Your task to perform on an android device: toggle location history Image 0: 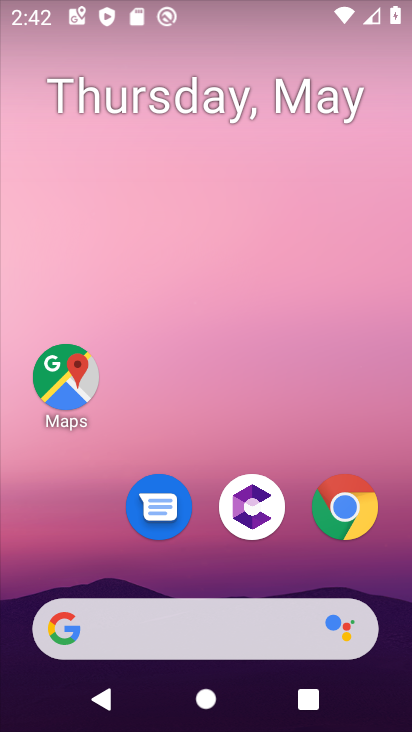
Step 0: press home button
Your task to perform on an android device: toggle location history Image 1: 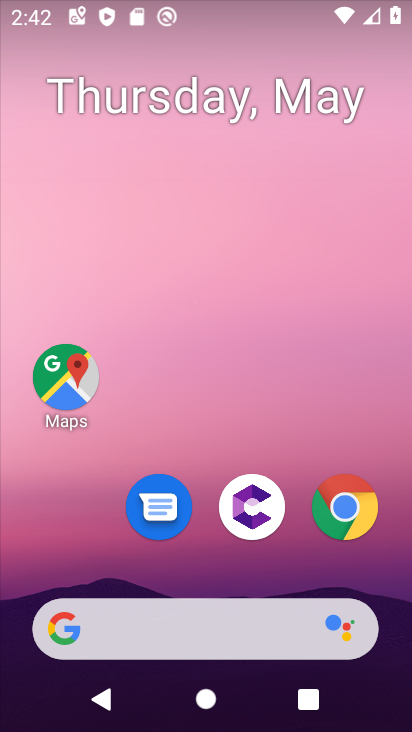
Step 1: drag from (287, 583) to (82, 86)
Your task to perform on an android device: toggle location history Image 2: 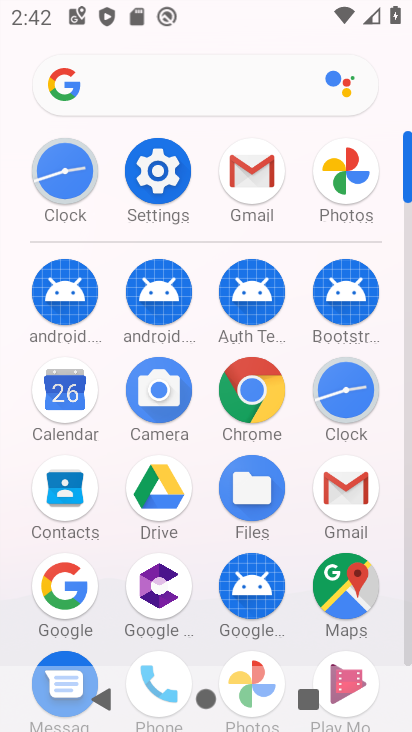
Step 2: click (141, 169)
Your task to perform on an android device: toggle location history Image 3: 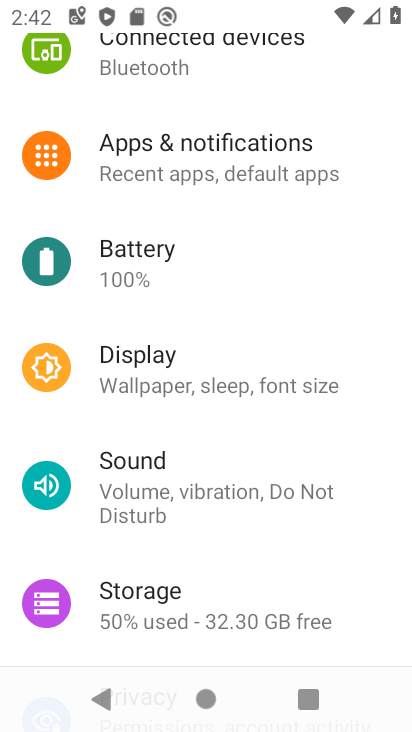
Step 3: drag from (306, 579) to (214, 253)
Your task to perform on an android device: toggle location history Image 4: 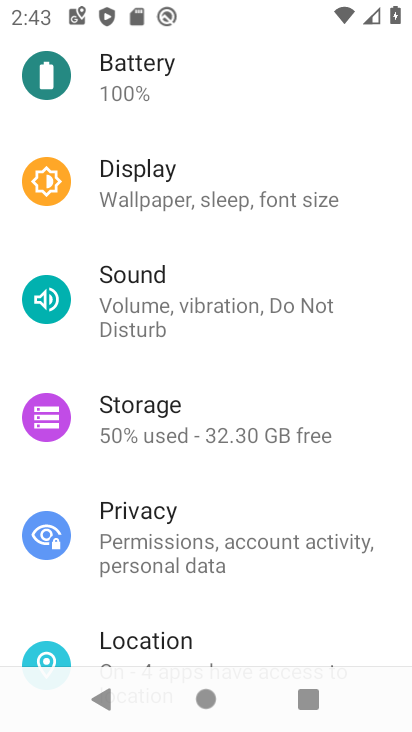
Step 4: click (173, 647)
Your task to perform on an android device: toggle location history Image 5: 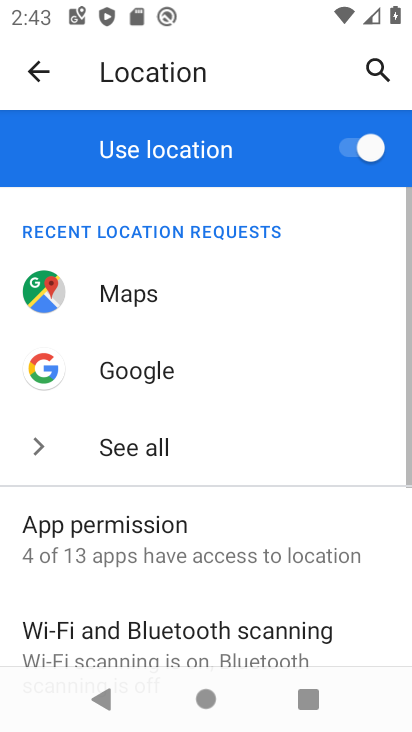
Step 5: drag from (284, 575) to (201, 123)
Your task to perform on an android device: toggle location history Image 6: 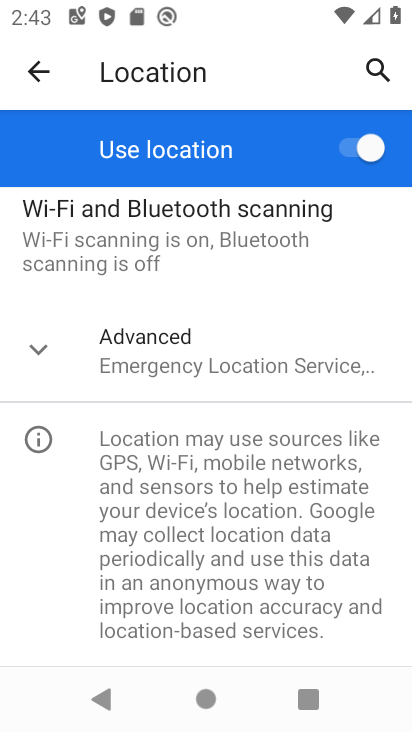
Step 6: click (143, 357)
Your task to perform on an android device: toggle location history Image 7: 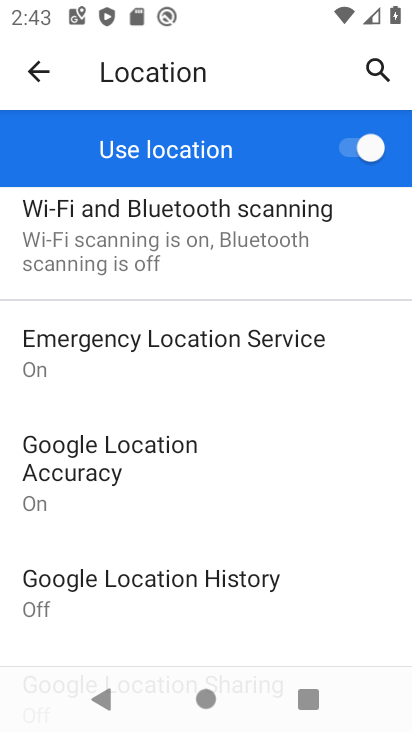
Step 7: click (152, 583)
Your task to perform on an android device: toggle location history Image 8: 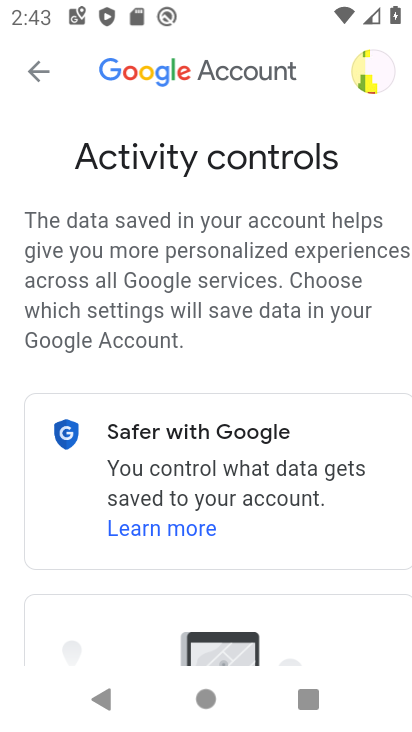
Step 8: drag from (210, 545) to (141, 69)
Your task to perform on an android device: toggle location history Image 9: 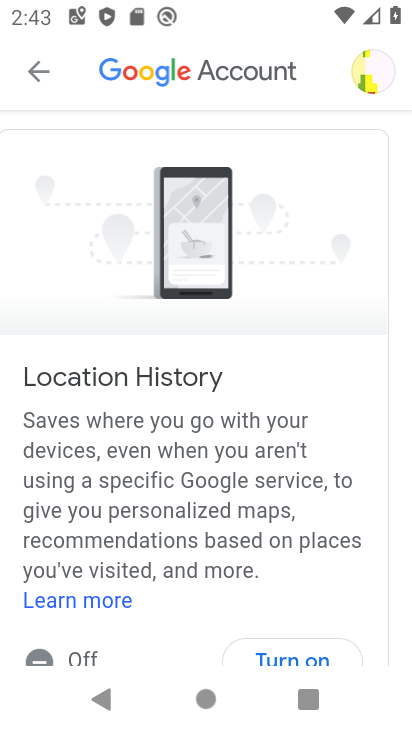
Step 9: drag from (281, 573) to (239, 247)
Your task to perform on an android device: toggle location history Image 10: 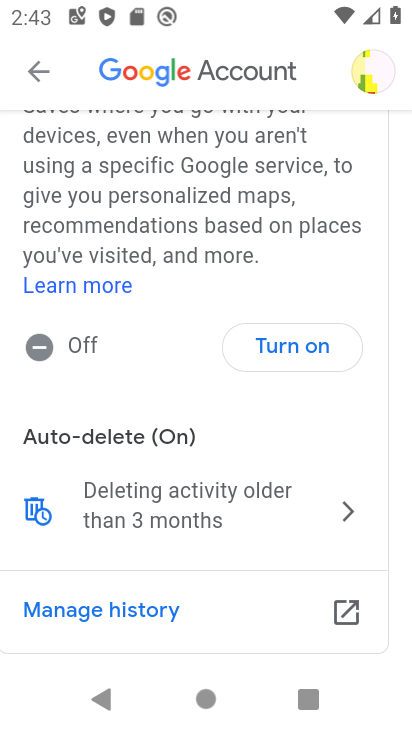
Step 10: click (253, 345)
Your task to perform on an android device: toggle location history Image 11: 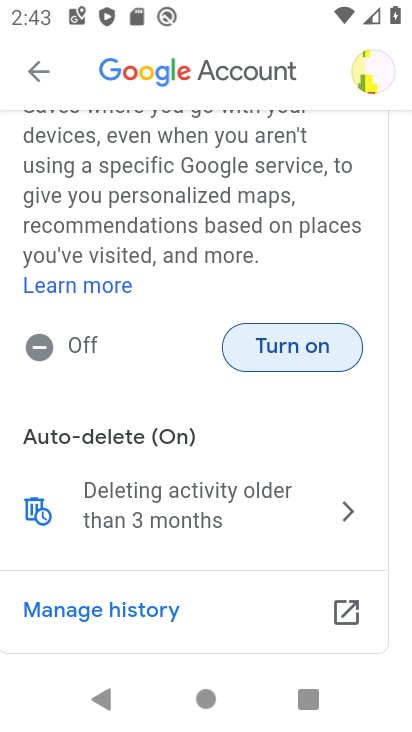
Step 11: task complete